Your task to perform on an android device: find snoozed emails in the gmail app Image 0: 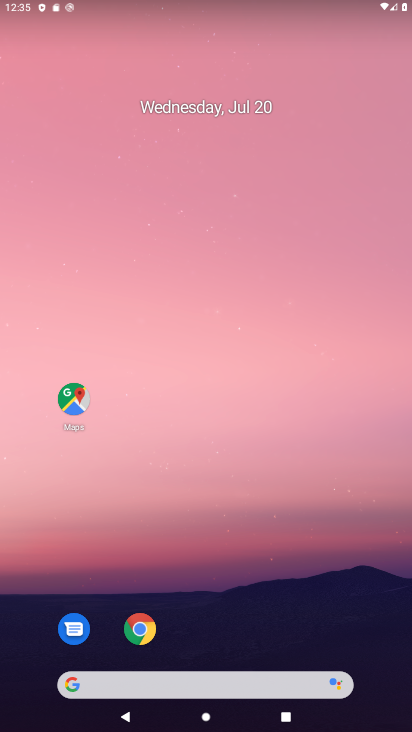
Step 0: drag from (329, 627) to (244, 29)
Your task to perform on an android device: find snoozed emails in the gmail app Image 1: 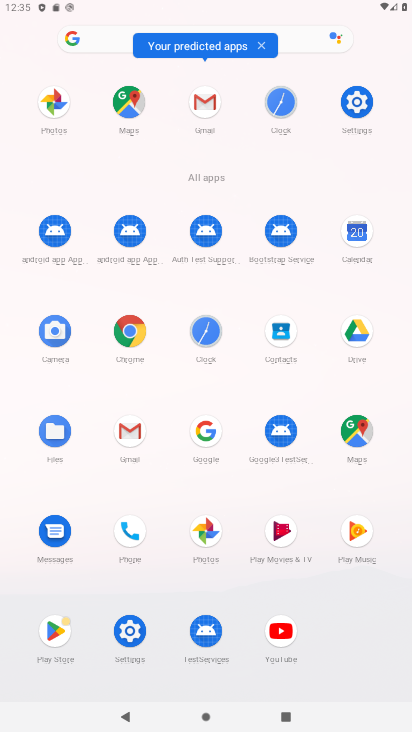
Step 1: click (208, 97)
Your task to perform on an android device: find snoozed emails in the gmail app Image 2: 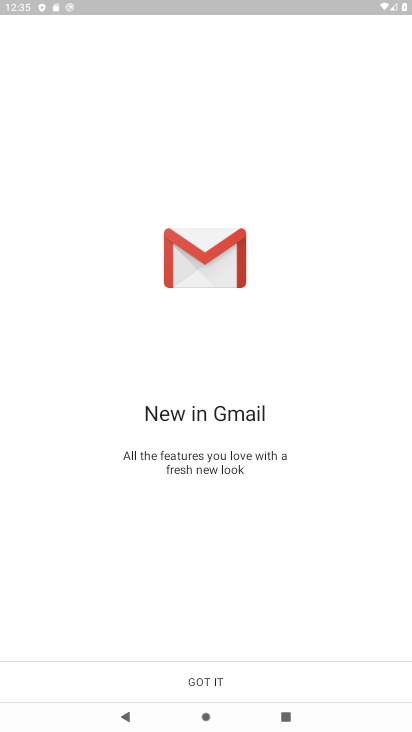
Step 2: click (216, 676)
Your task to perform on an android device: find snoozed emails in the gmail app Image 3: 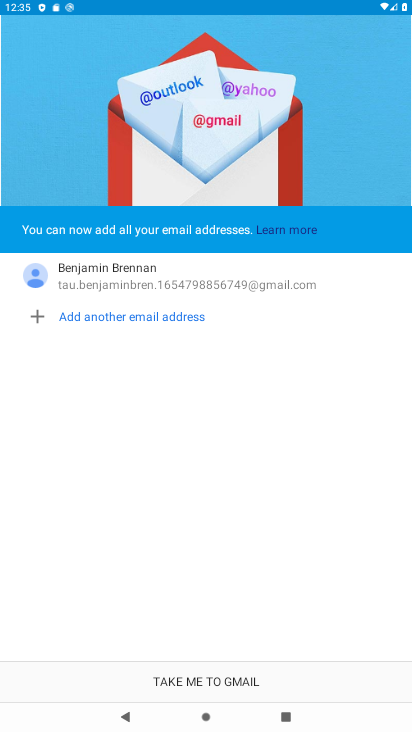
Step 3: click (216, 676)
Your task to perform on an android device: find snoozed emails in the gmail app Image 4: 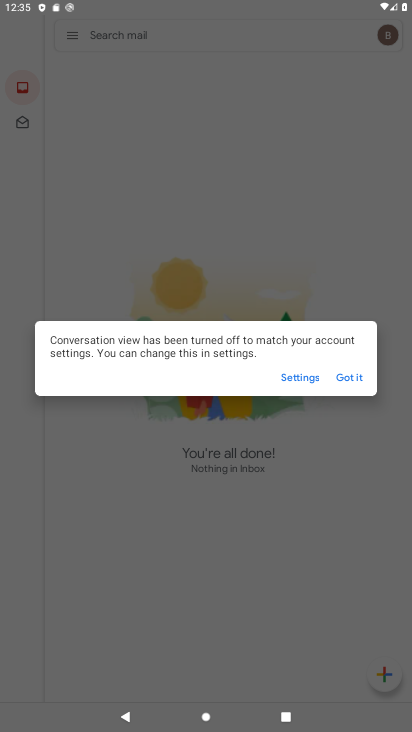
Step 4: click (352, 378)
Your task to perform on an android device: find snoozed emails in the gmail app Image 5: 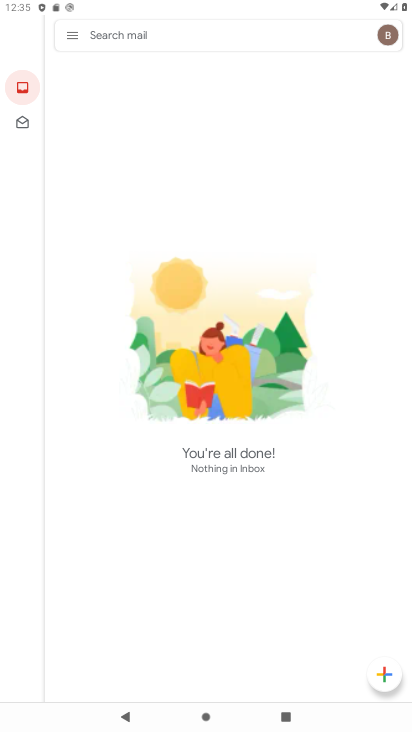
Step 5: click (64, 37)
Your task to perform on an android device: find snoozed emails in the gmail app Image 6: 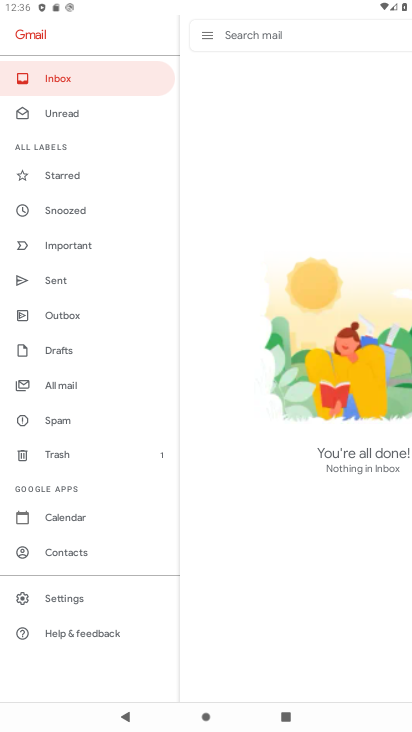
Step 6: click (77, 219)
Your task to perform on an android device: find snoozed emails in the gmail app Image 7: 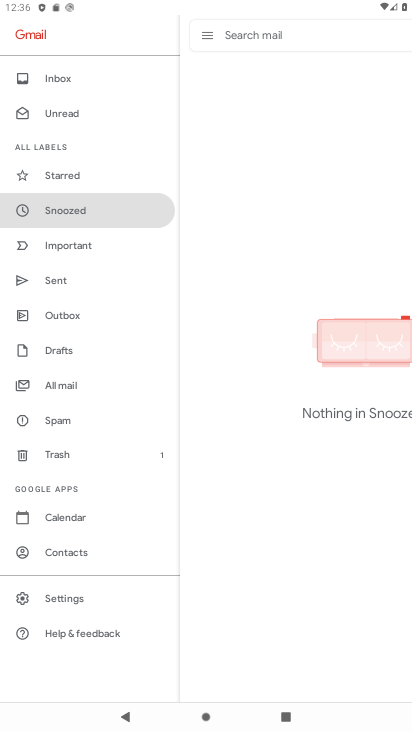
Step 7: task complete